Your task to perform on an android device: move an email to a new category in the gmail app Image 0: 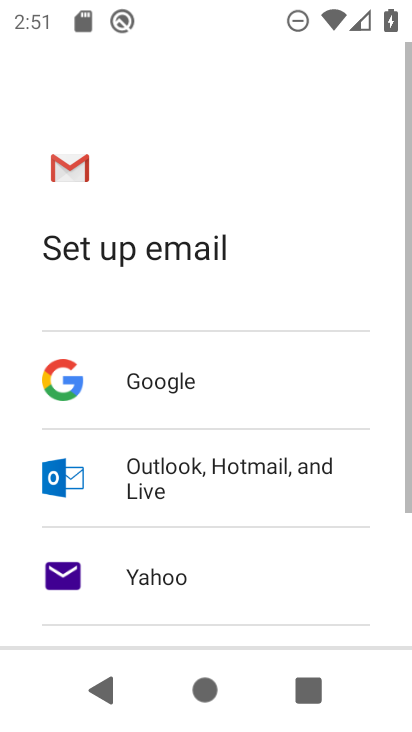
Step 0: press home button
Your task to perform on an android device: move an email to a new category in the gmail app Image 1: 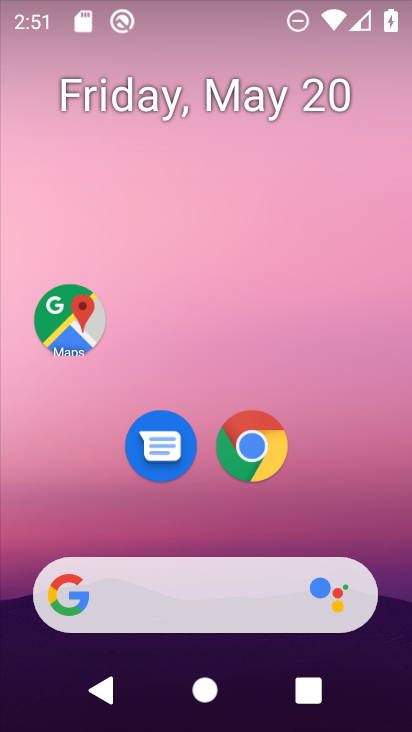
Step 1: drag from (302, 508) to (276, 0)
Your task to perform on an android device: move an email to a new category in the gmail app Image 2: 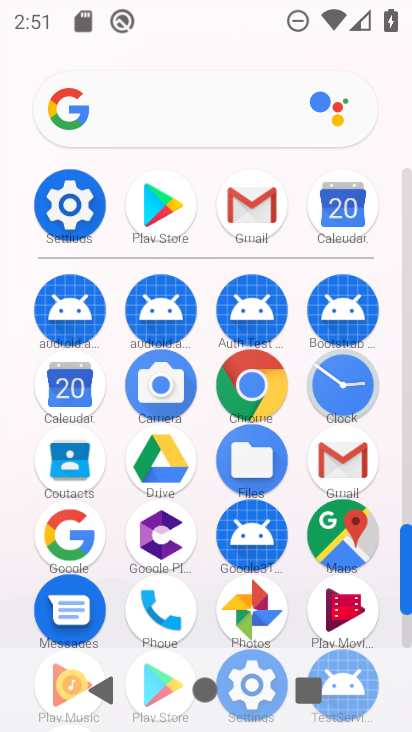
Step 2: click (246, 201)
Your task to perform on an android device: move an email to a new category in the gmail app Image 3: 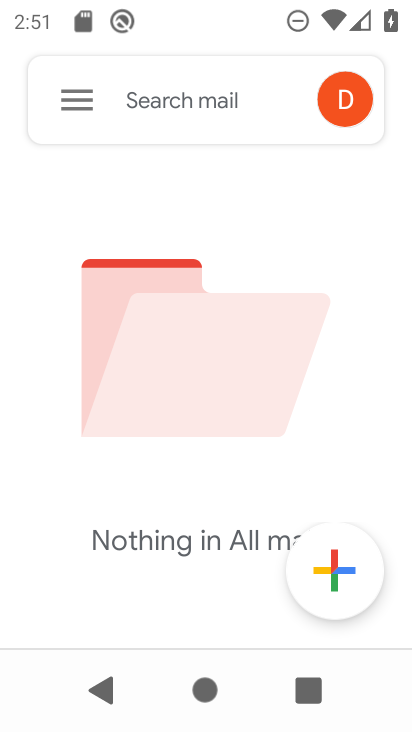
Step 3: task complete